Your task to perform on an android device: turn on wifi Image 0: 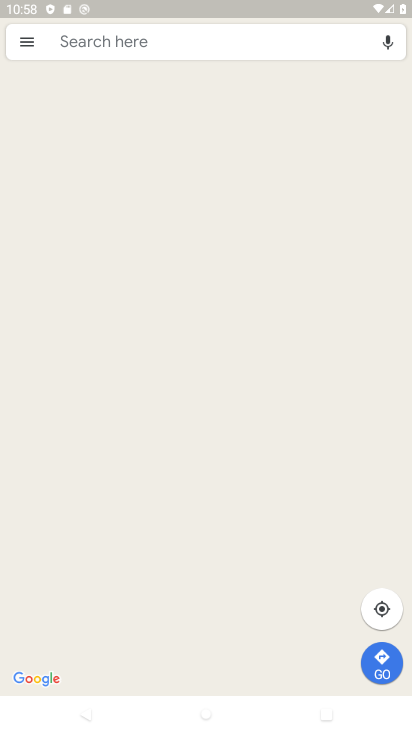
Step 0: drag from (349, 624) to (265, 74)
Your task to perform on an android device: turn on wifi Image 1: 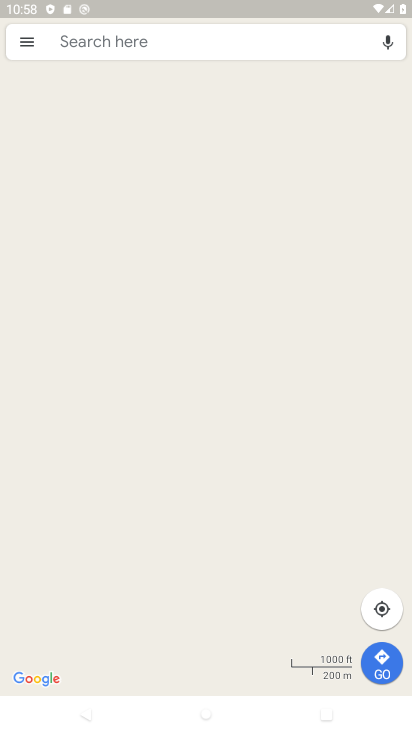
Step 1: press home button
Your task to perform on an android device: turn on wifi Image 2: 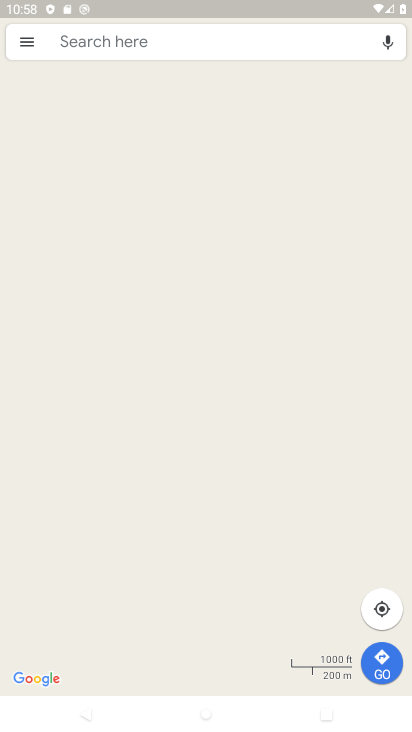
Step 2: press home button
Your task to perform on an android device: turn on wifi Image 3: 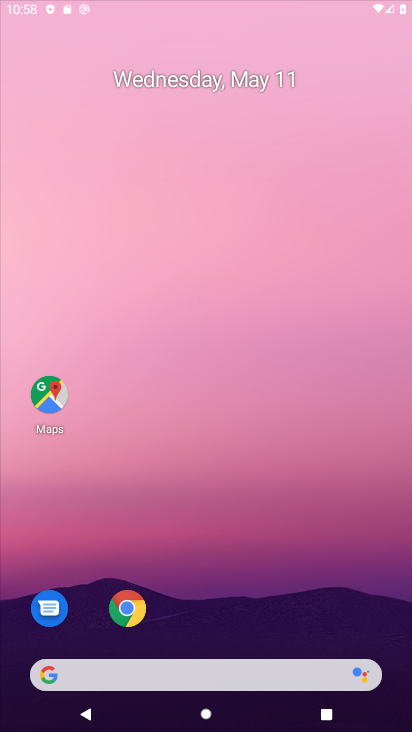
Step 3: press home button
Your task to perform on an android device: turn on wifi Image 4: 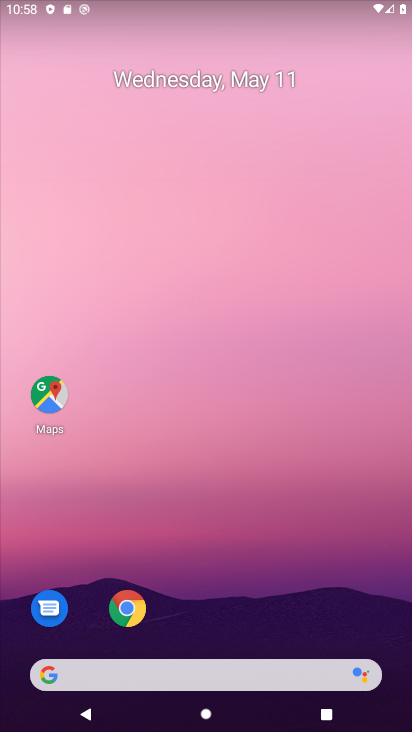
Step 4: drag from (309, 592) to (182, 245)
Your task to perform on an android device: turn on wifi Image 5: 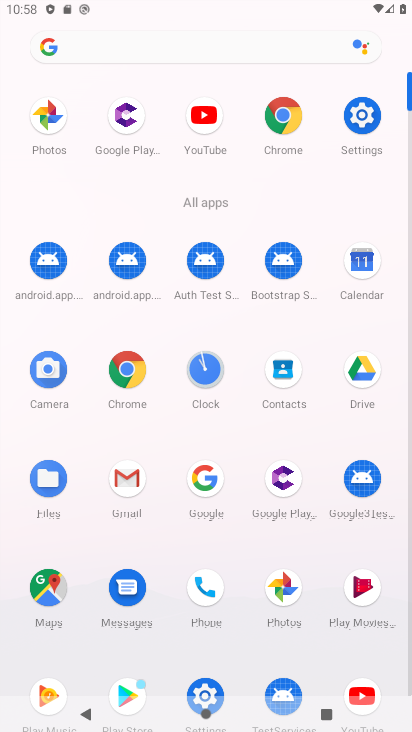
Step 5: click (357, 129)
Your task to perform on an android device: turn on wifi Image 6: 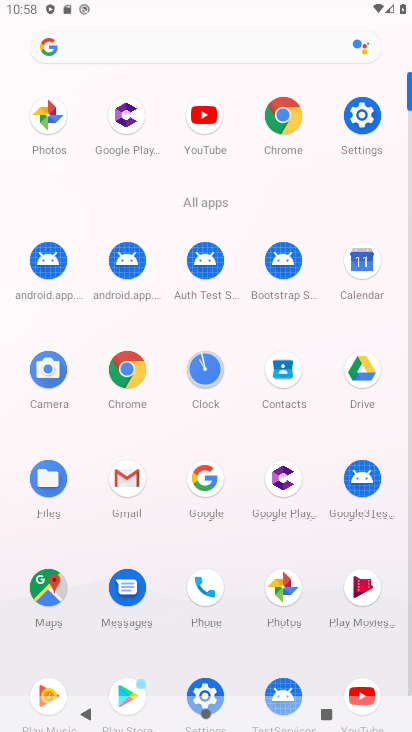
Step 6: click (351, 107)
Your task to perform on an android device: turn on wifi Image 7: 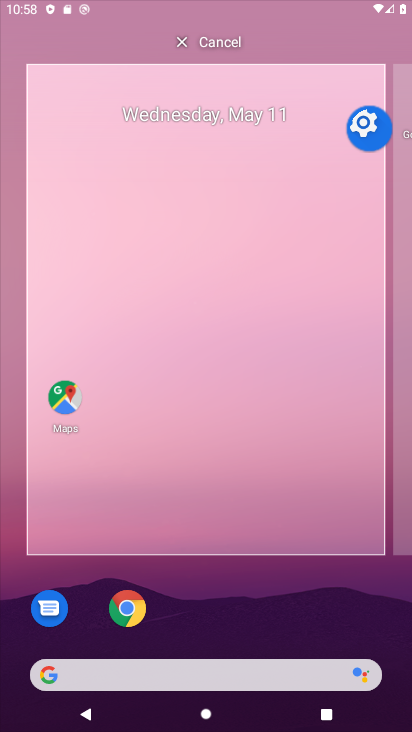
Step 7: click (358, 120)
Your task to perform on an android device: turn on wifi Image 8: 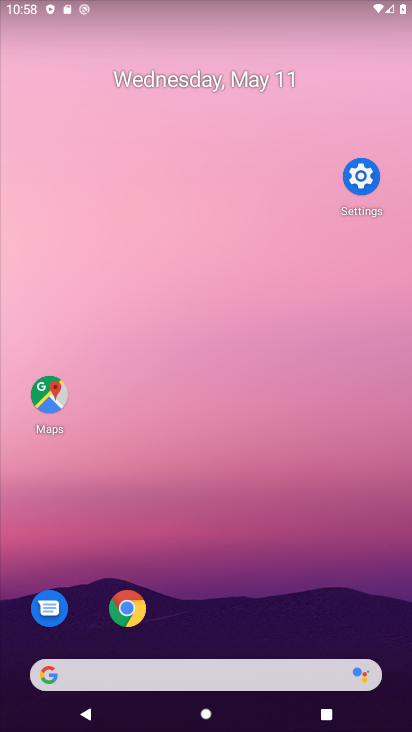
Step 8: click (357, 176)
Your task to perform on an android device: turn on wifi Image 9: 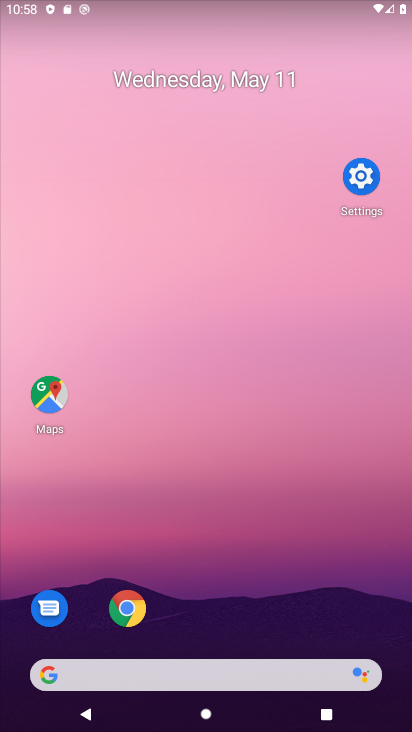
Step 9: click (357, 172)
Your task to perform on an android device: turn on wifi Image 10: 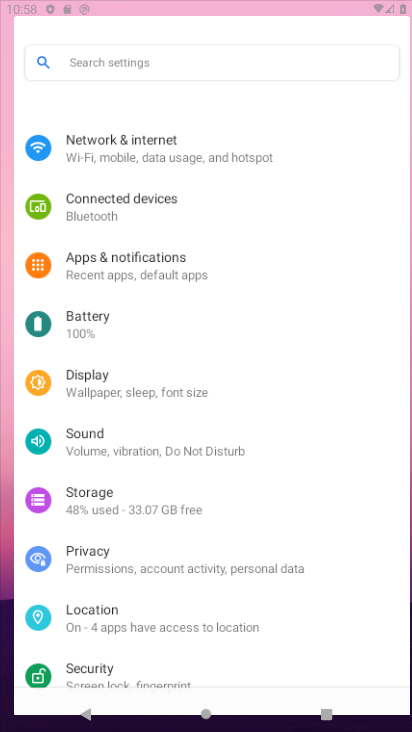
Step 10: click (358, 169)
Your task to perform on an android device: turn on wifi Image 11: 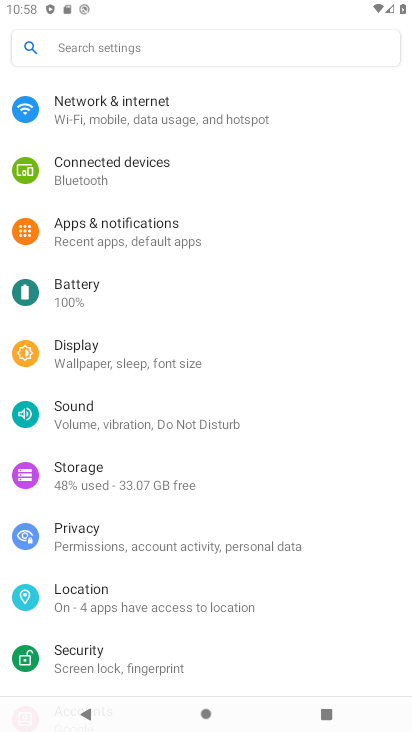
Step 11: click (358, 169)
Your task to perform on an android device: turn on wifi Image 12: 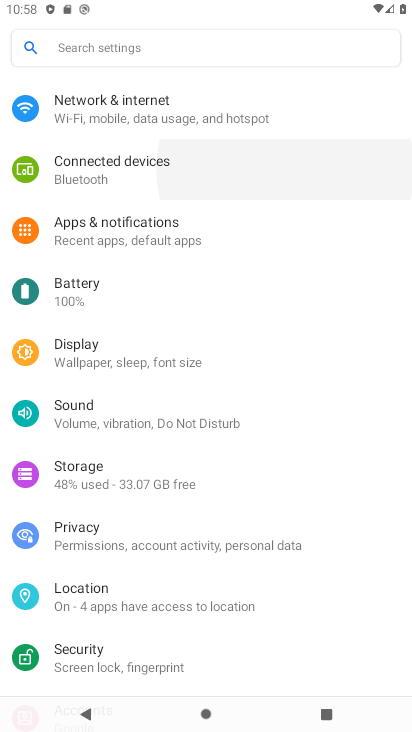
Step 12: click (358, 169)
Your task to perform on an android device: turn on wifi Image 13: 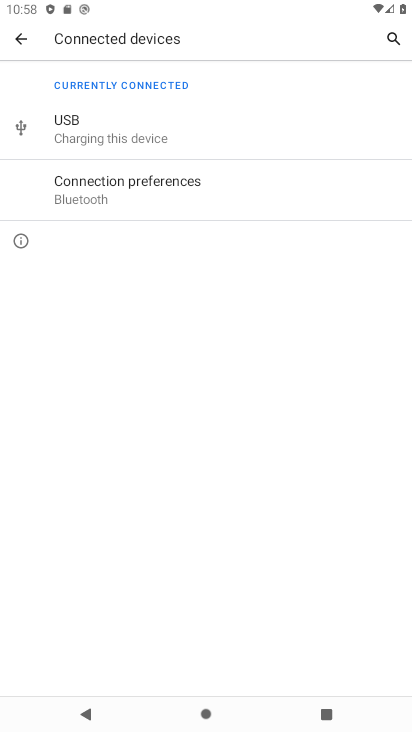
Step 13: click (8, 38)
Your task to perform on an android device: turn on wifi Image 14: 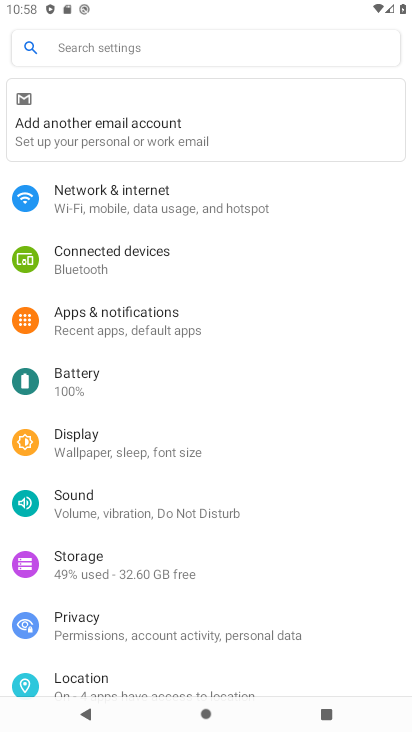
Step 14: click (138, 112)
Your task to perform on an android device: turn on wifi Image 15: 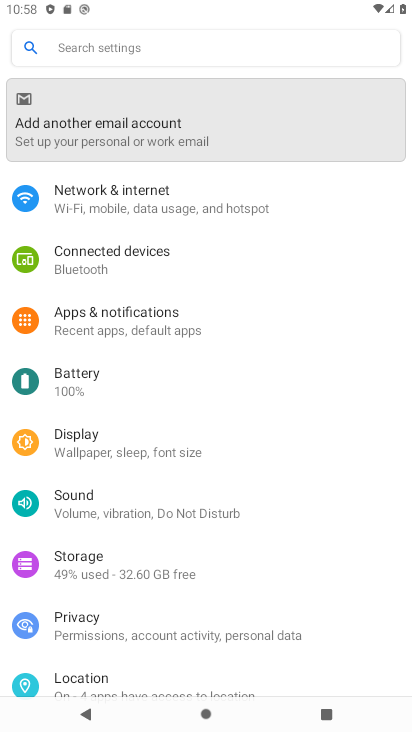
Step 15: click (138, 235)
Your task to perform on an android device: turn on wifi Image 16: 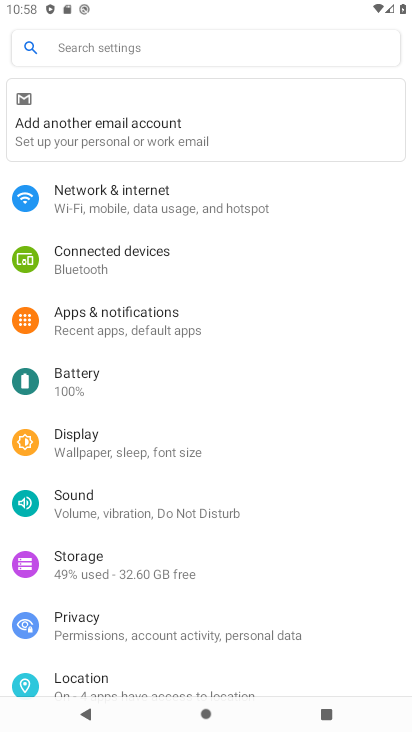
Step 16: click (127, 212)
Your task to perform on an android device: turn on wifi Image 17: 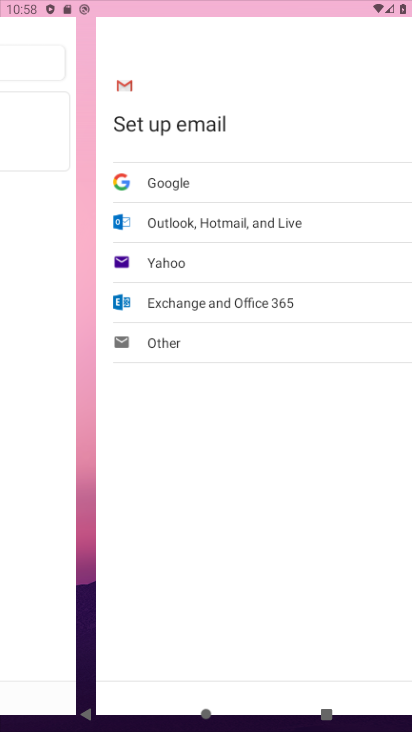
Step 17: click (126, 204)
Your task to perform on an android device: turn on wifi Image 18: 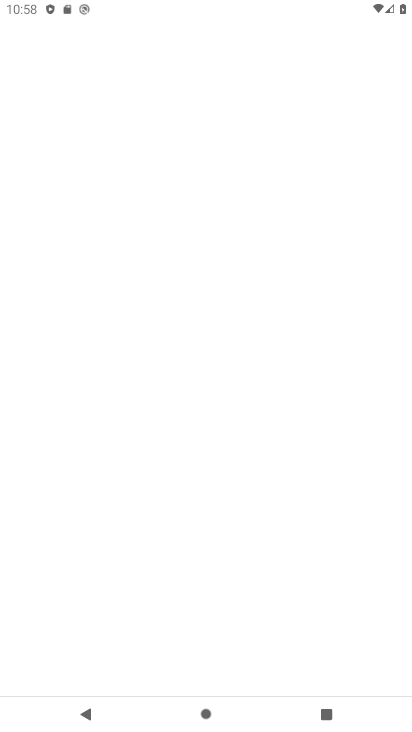
Step 18: press back button
Your task to perform on an android device: turn on wifi Image 19: 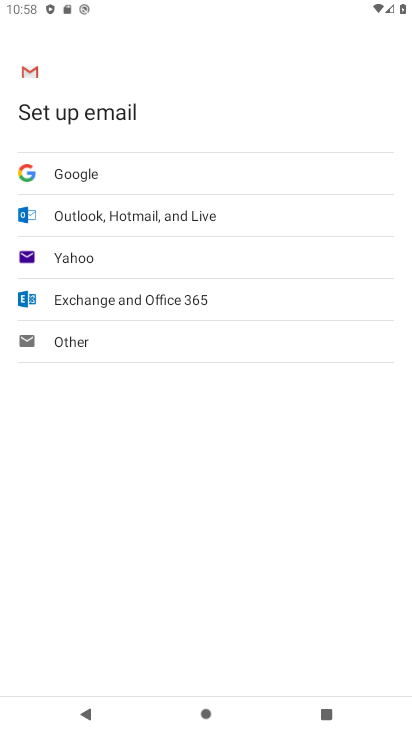
Step 19: press back button
Your task to perform on an android device: turn on wifi Image 20: 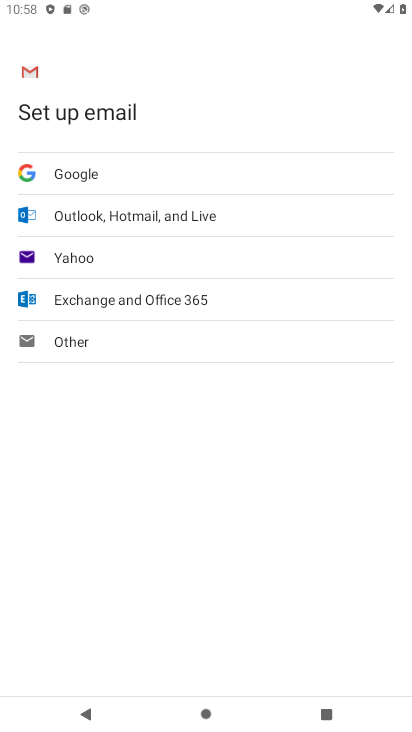
Step 20: press back button
Your task to perform on an android device: turn on wifi Image 21: 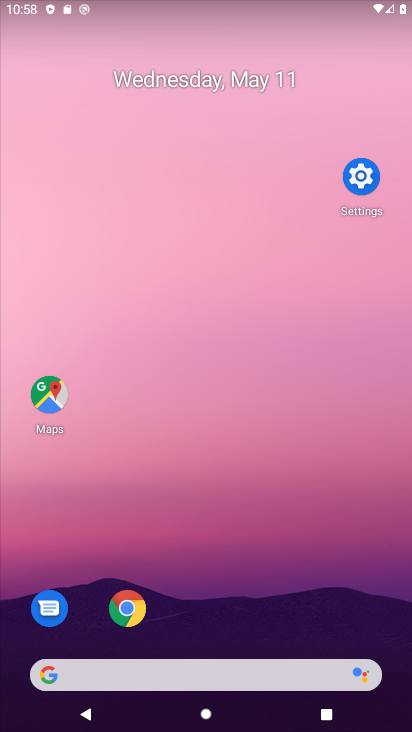
Step 21: drag from (290, 579) to (7, 31)
Your task to perform on an android device: turn on wifi Image 22: 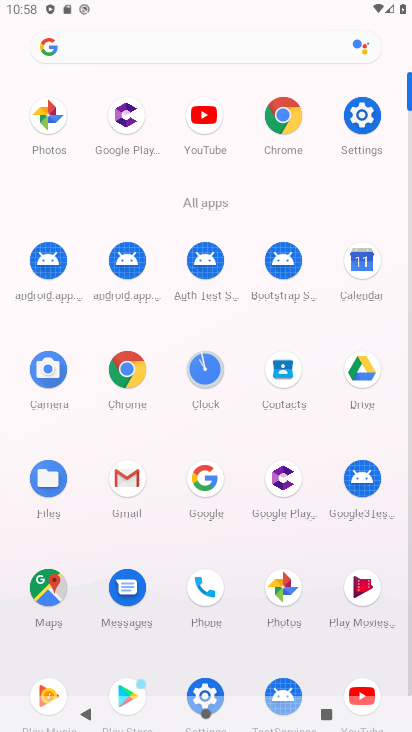
Step 22: click (347, 116)
Your task to perform on an android device: turn on wifi Image 23: 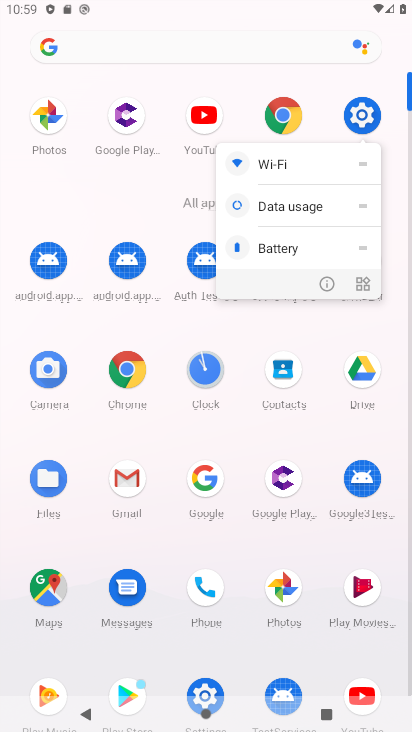
Step 23: click (287, 172)
Your task to perform on an android device: turn on wifi Image 24: 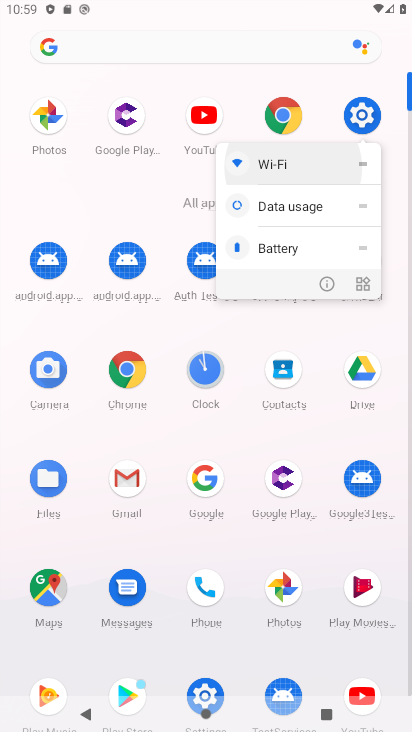
Step 24: click (277, 143)
Your task to perform on an android device: turn on wifi Image 25: 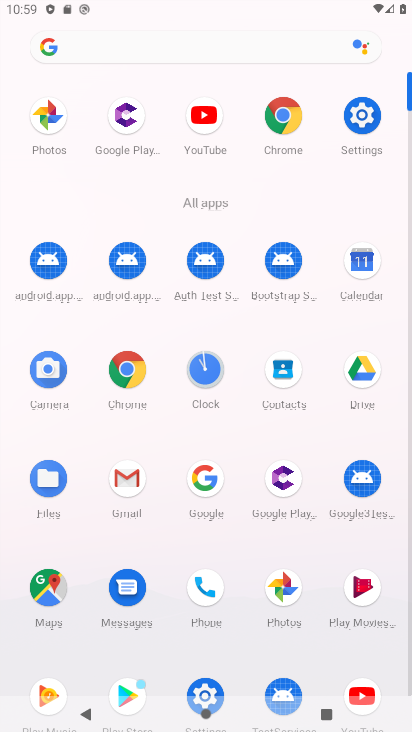
Step 25: click (354, 120)
Your task to perform on an android device: turn on wifi Image 26: 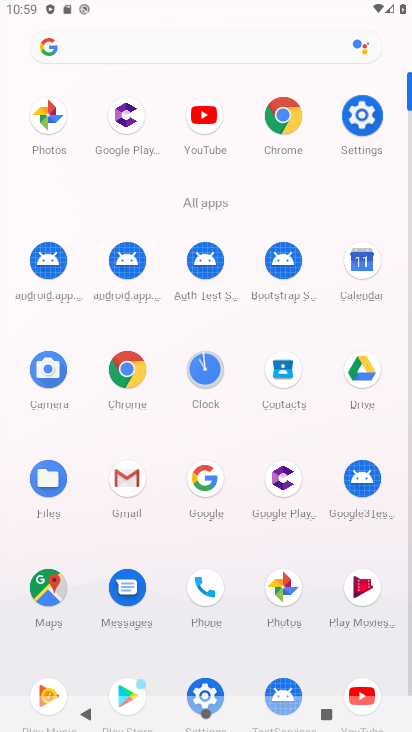
Step 26: click (356, 123)
Your task to perform on an android device: turn on wifi Image 27: 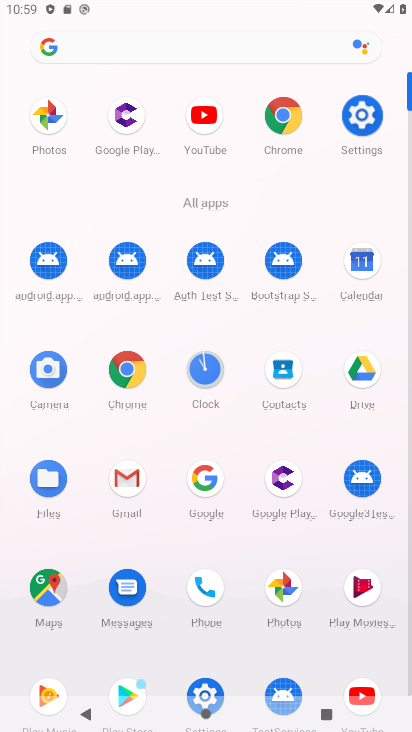
Step 27: click (356, 123)
Your task to perform on an android device: turn on wifi Image 28: 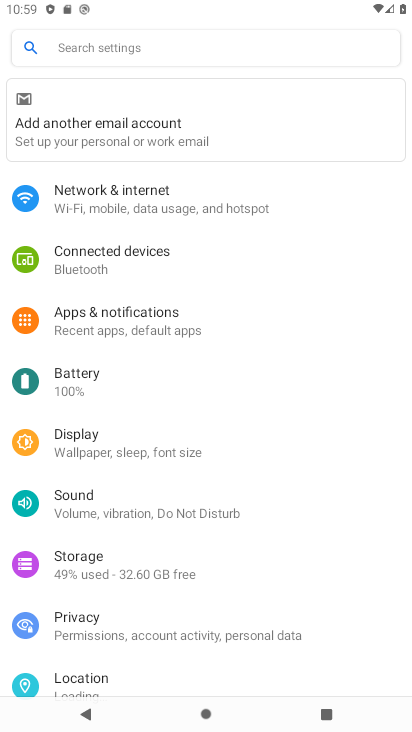
Step 28: click (138, 205)
Your task to perform on an android device: turn on wifi Image 29: 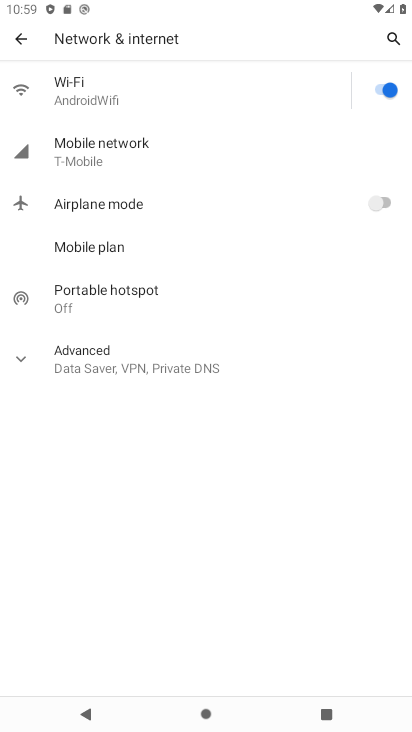
Step 29: task complete